Your task to perform on an android device: Go to Android settings Image 0: 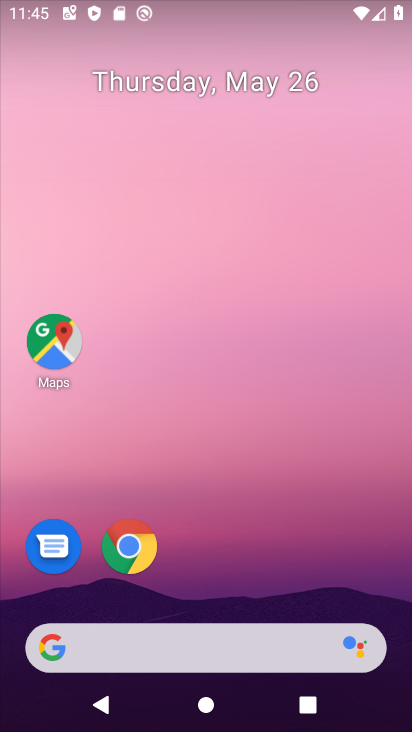
Step 0: drag from (245, 542) to (170, 210)
Your task to perform on an android device: Go to Android settings Image 1: 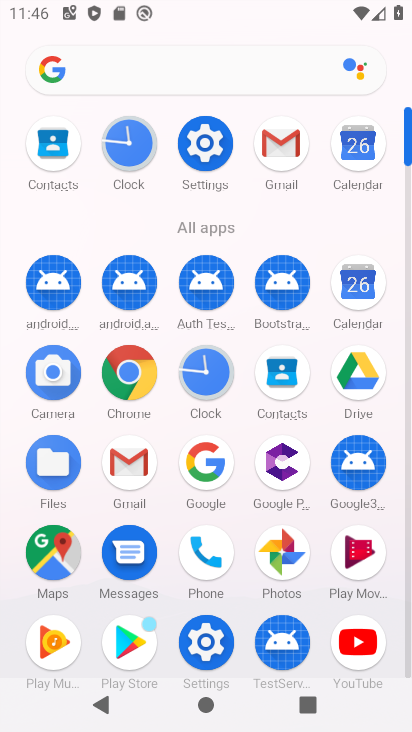
Step 1: click (201, 150)
Your task to perform on an android device: Go to Android settings Image 2: 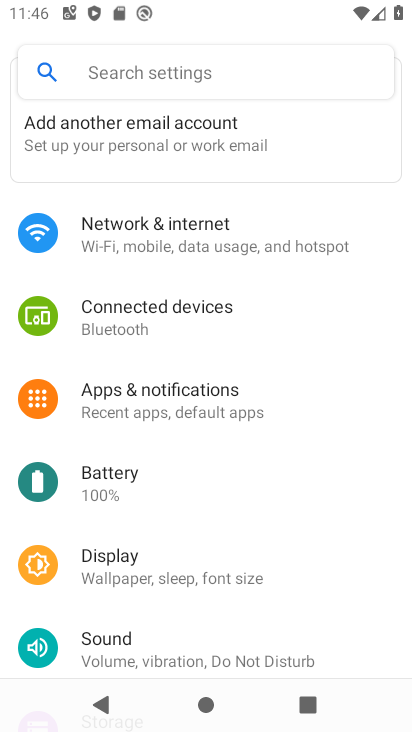
Step 2: task complete